Your task to perform on an android device: Go to location settings Image 0: 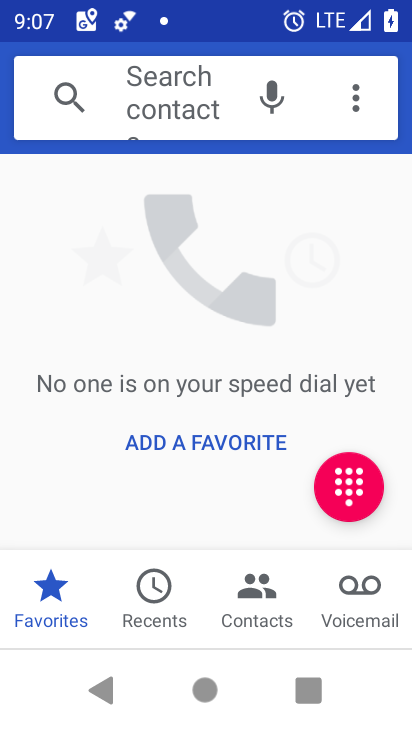
Step 0: press home button
Your task to perform on an android device: Go to location settings Image 1: 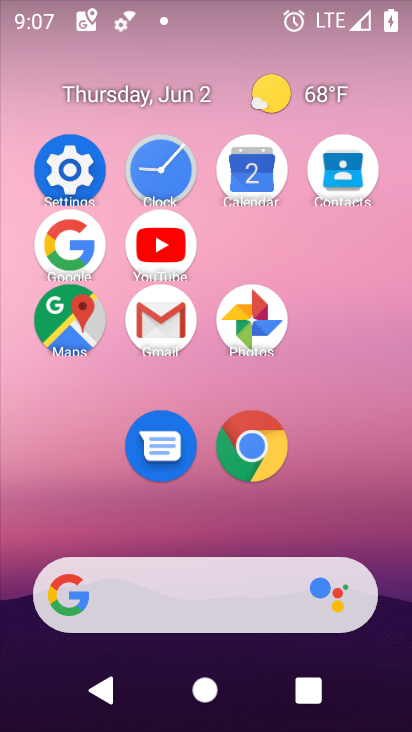
Step 1: click (70, 160)
Your task to perform on an android device: Go to location settings Image 2: 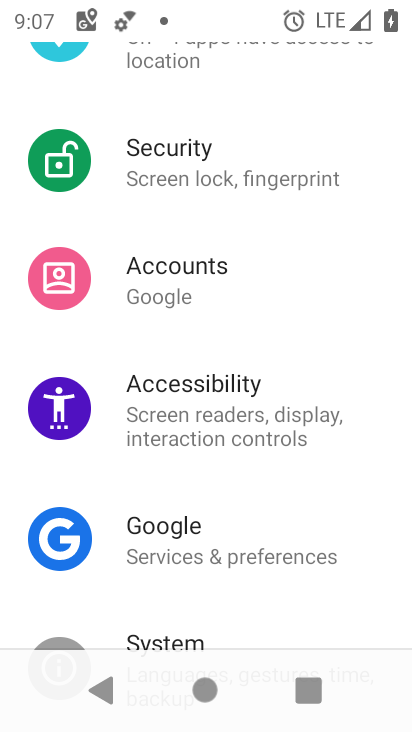
Step 2: drag from (309, 255) to (305, 547)
Your task to perform on an android device: Go to location settings Image 3: 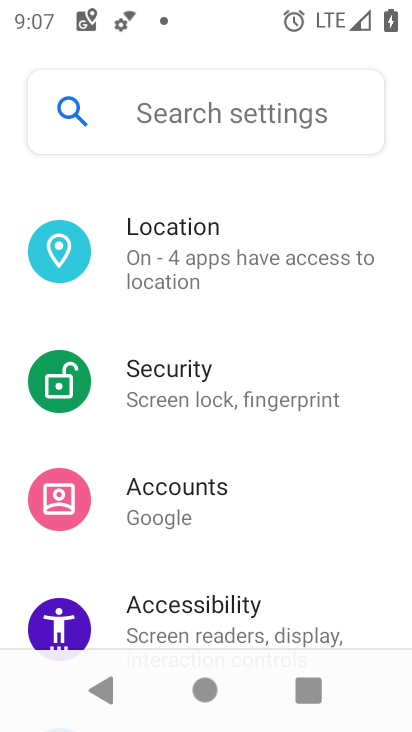
Step 3: click (236, 267)
Your task to perform on an android device: Go to location settings Image 4: 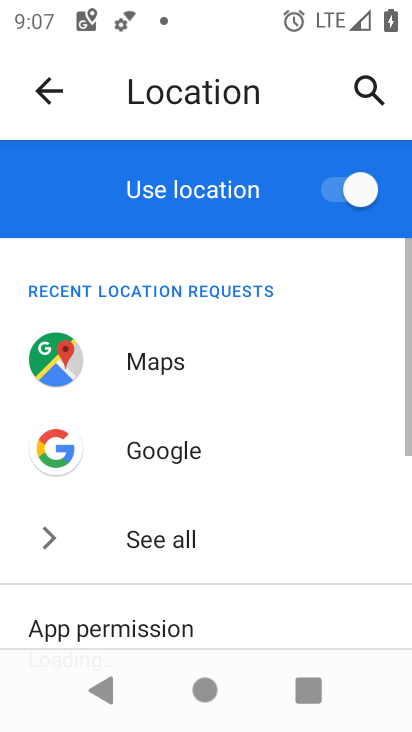
Step 4: task complete